Your task to perform on an android device: toggle data saver in the chrome app Image 0: 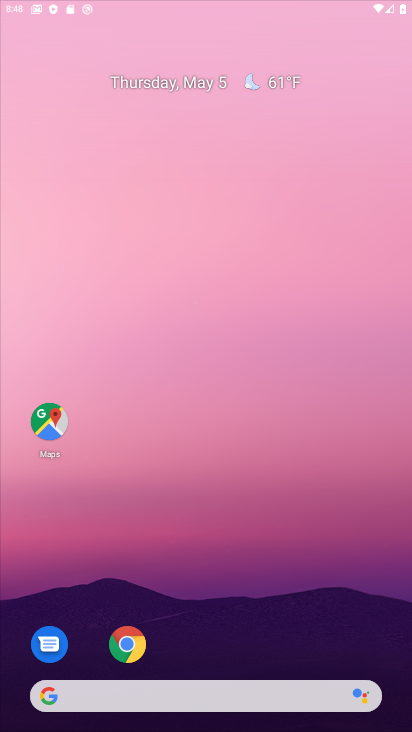
Step 0: click (151, 151)
Your task to perform on an android device: toggle data saver in the chrome app Image 1: 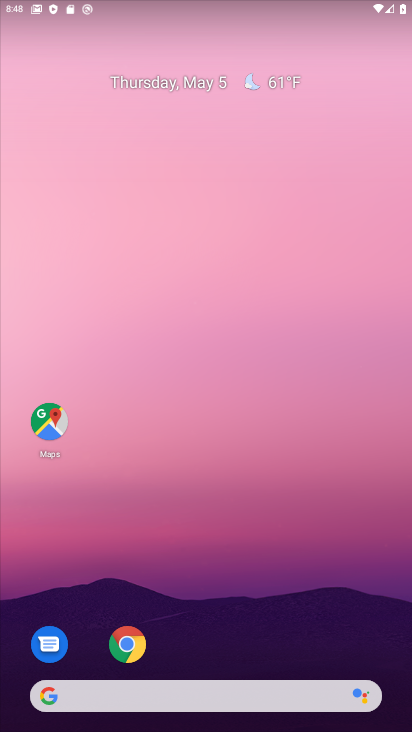
Step 1: drag from (170, 675) to (184, 245)
Your task to perform on an android device: toggle data saver in the chrome app Image 2: 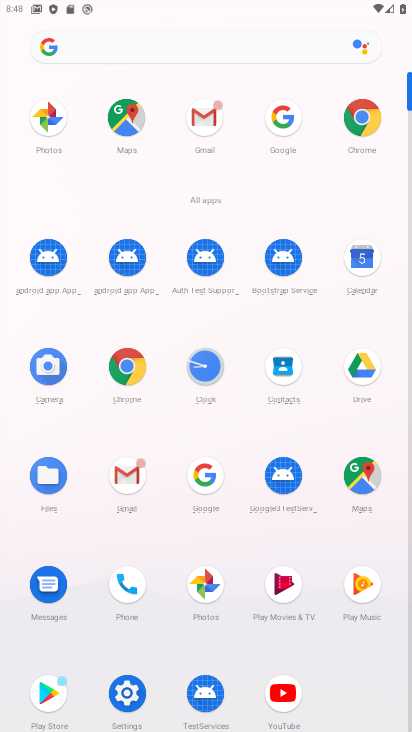
Step 2: click (125, 354)
Your task to perform on an android device: toggle data saver in the chrome app Image 3: 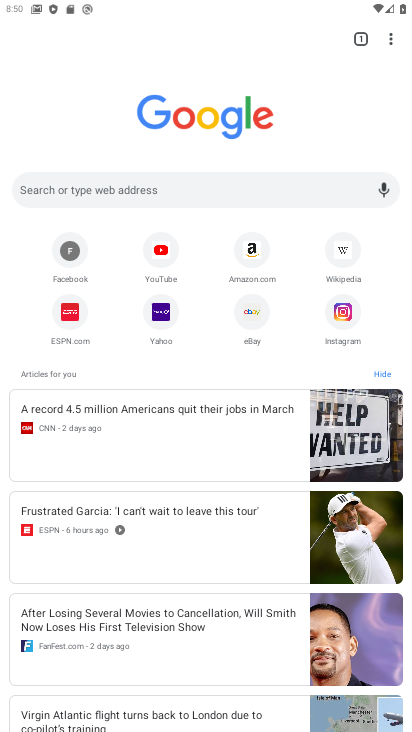
Step 3: click (386, 35)
Your task to perform on an android device: toggle data saver in the chrome app Image 4: 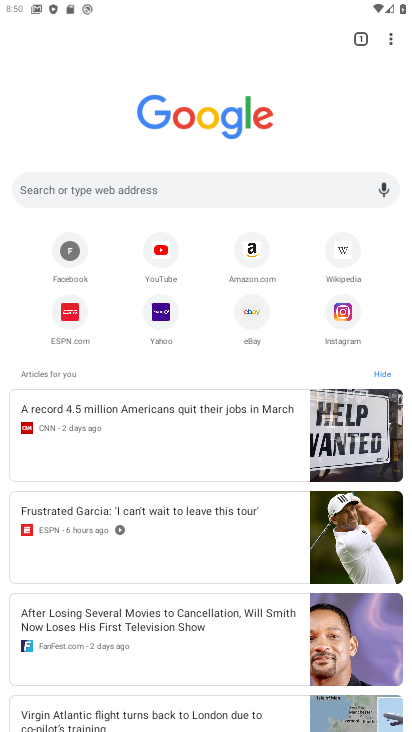
Step 4: click (392, 37)
Your task to perform on an android device: toggle data saver in the chrome app Image 5: 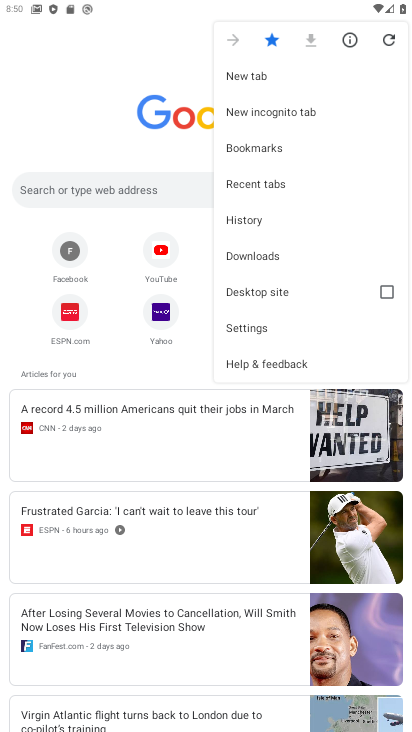
Step 5: click (247, 332)
Your task to perform on an android device: toggle data saver in the chrome app Image 6: 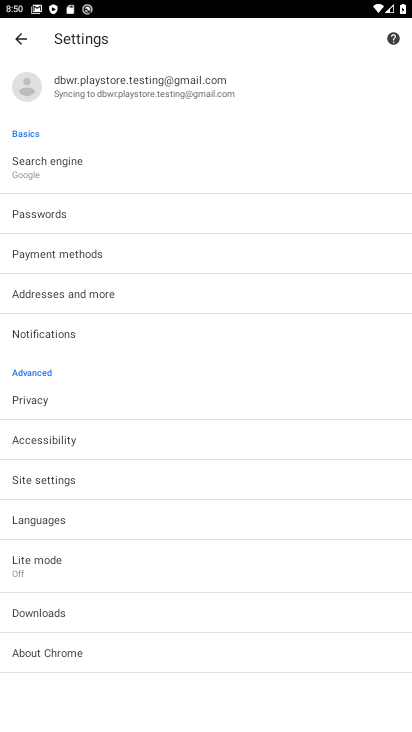
Step 6: click (46, 566)
Your task to perform on an android device: toggle data saver in the chrome app Image 7: 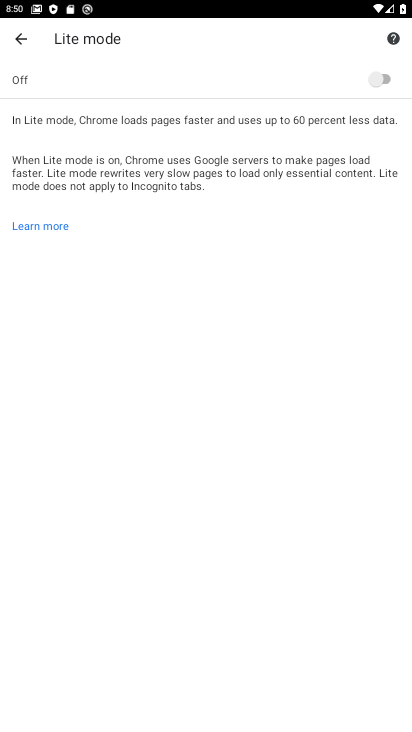
Step 7: click (378, 72)
Your task to perform on an android device: toggle data saver in the chrome app Image 8: 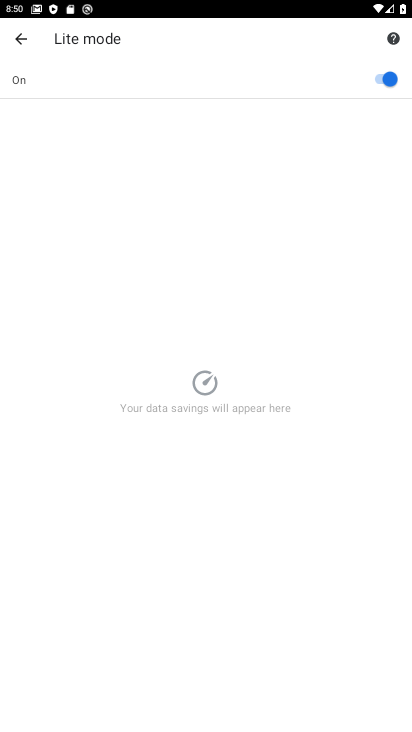
Step 8: task complete